Your task to perform on an android device: Open battery settings Image 0: 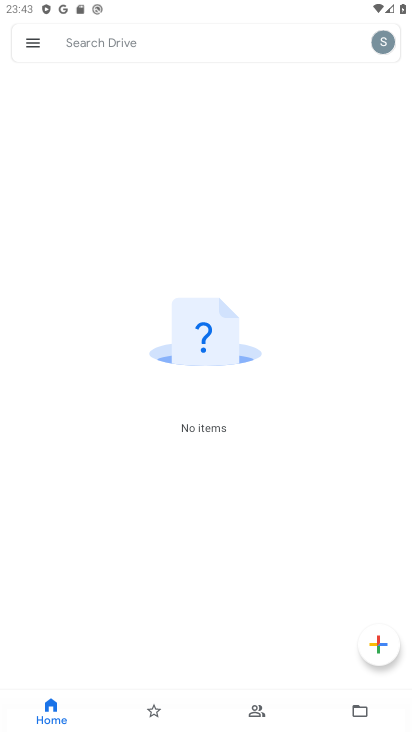
Step 0: press home button
Your task to perform on an android device: Open battery settings Image 1: 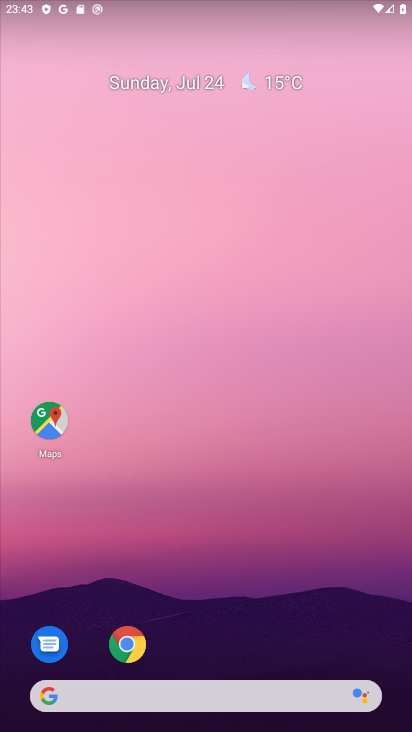
Step 1: drag from (213, 723) to (227, 241)
Your task to perform on an android device: Open battery settings Image 2: 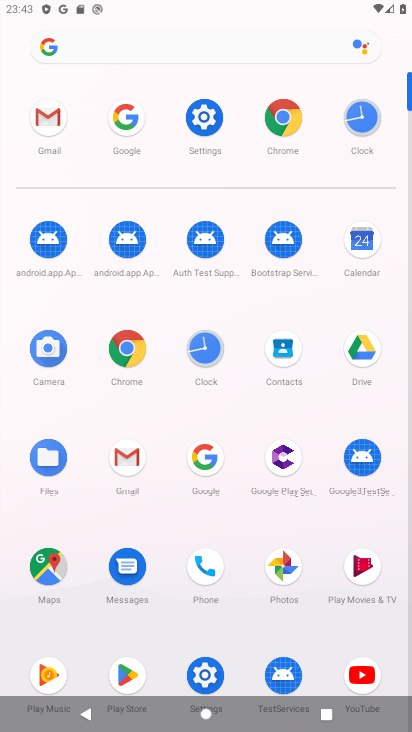
Step 2: click (196, 114)
Your task to perform on an android device: Open battery settings Image 3: 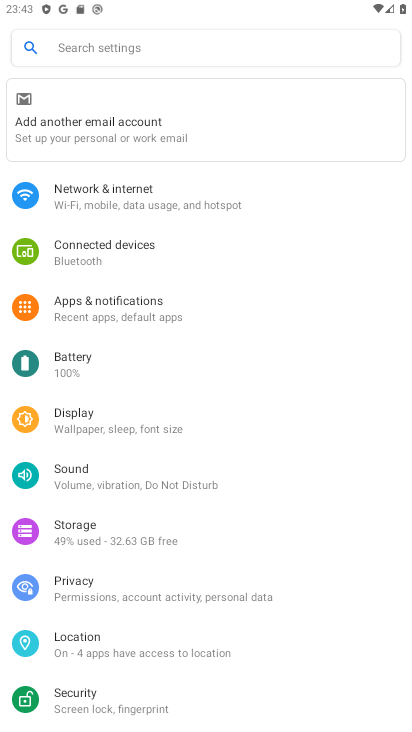
Step 3: click (72, 362)
Your task to perform on an android device: Open battery settings Image 4: 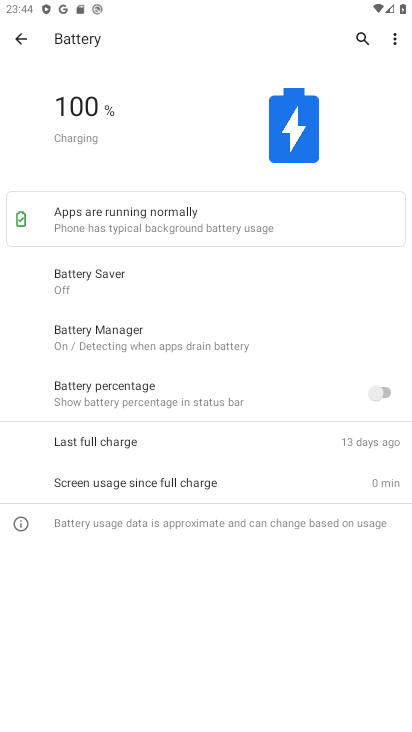
Step 4: task complete